Your task to perform on an android device: Go to internet settings Image 0: 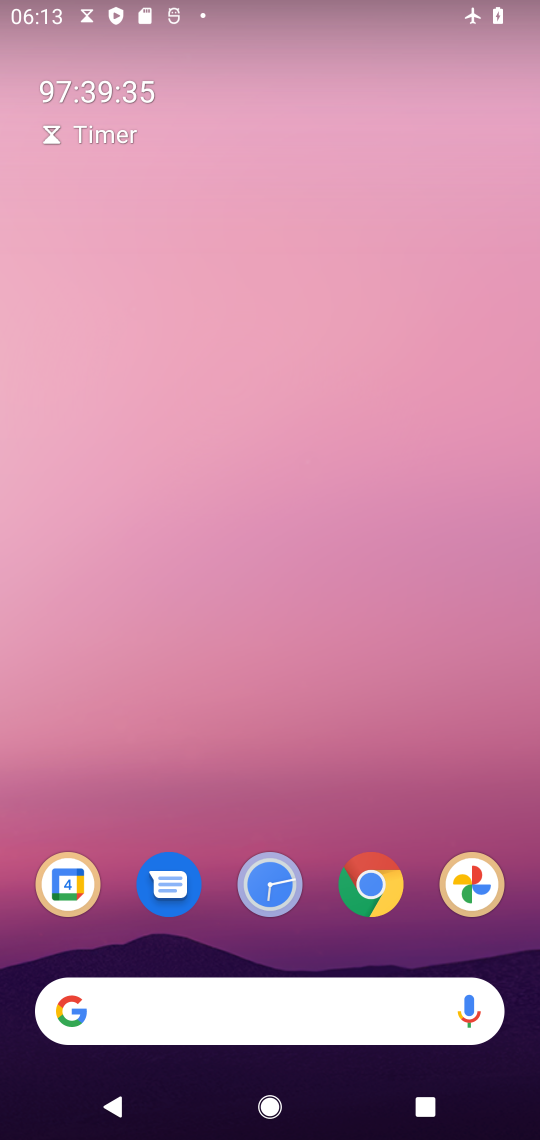
Step 0: drag from (281, 980) to (316, 370)
Your task to perform on an android device: Go to internet settings Image 1: 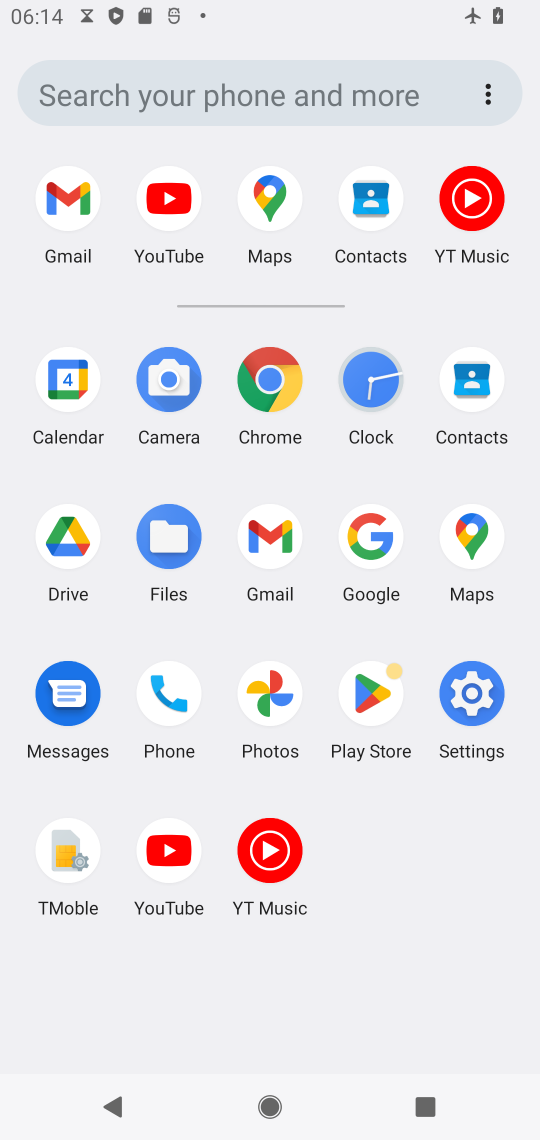
Step 1: click (480, 686)
Your task to perform on an android device: Go to internet settings Image 2: 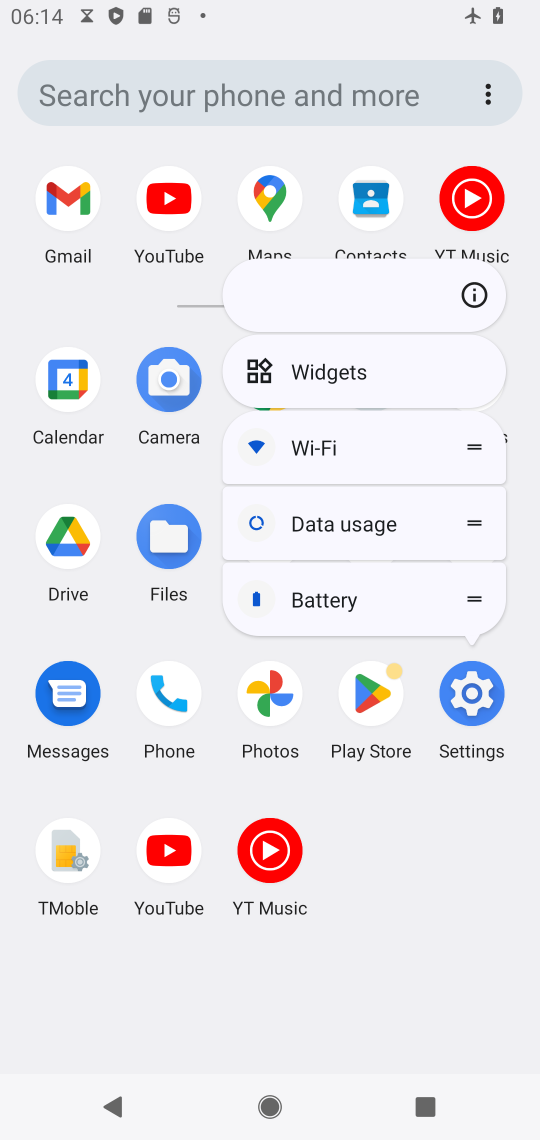
Step 2: click (466, 680)
Your task to perform on an android device: Go to internet settings Image 3: 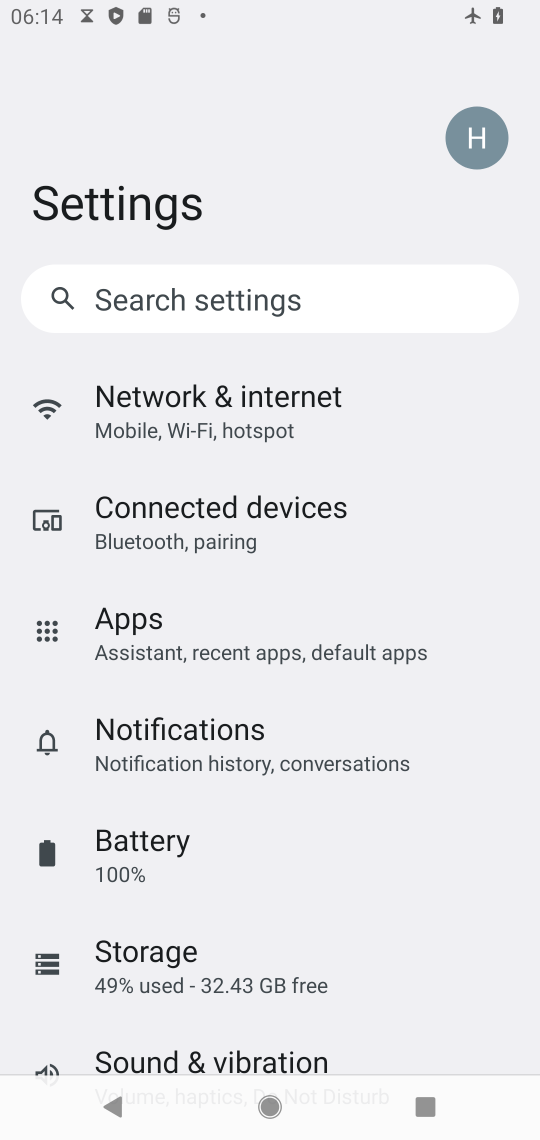
Step 3: click (225, 388)
Your task to perform on an android device: Go to internet settings Image 4: 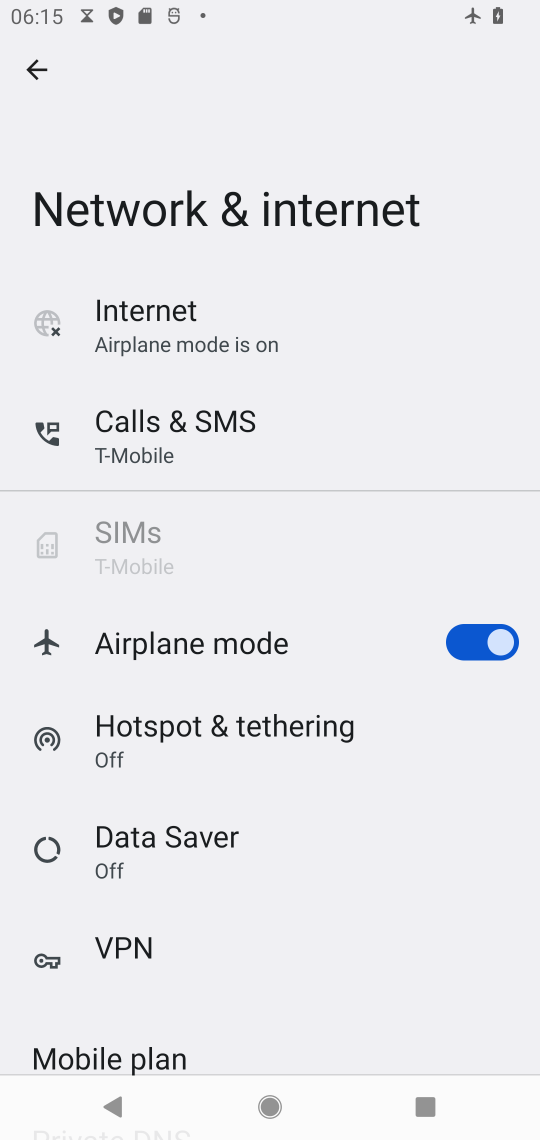
Step 4: task complete